Your task to perform on an android device: Open the calendar app, open the side menu, and click the "Day" option Image 0: 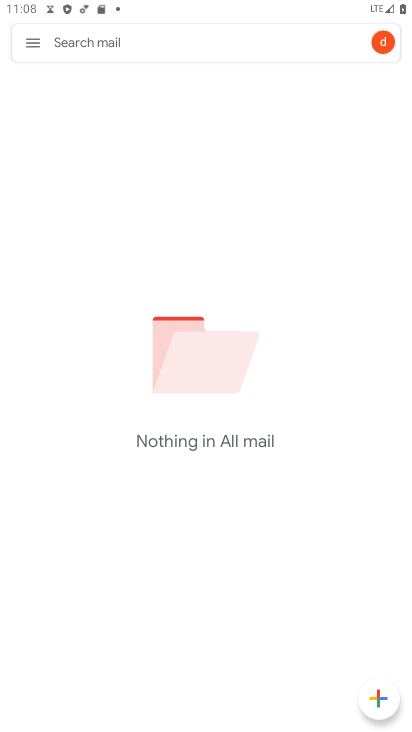
Step 0: press back button
Your task to perform on an android device: Open the calendar app, open the side menu, and click the "Day" option Image 1: 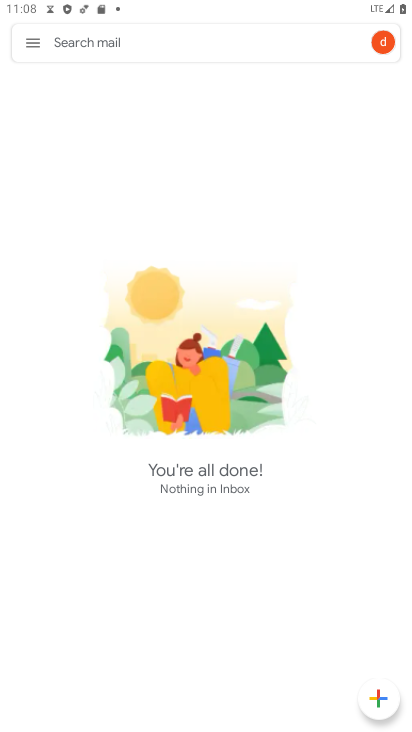
Step 1: press back button
Your task to perform on an android device: Open the calendar app, open the side menu, and click the "Day" option Image 2: 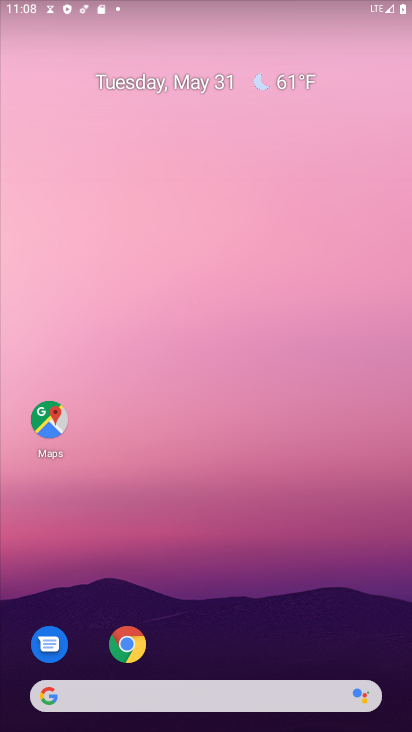
Step 2: drag from (248, 563) to (244, 20)
Your task to perform on an android device: Open the calendar app, open the side menu, and click the "Day" option Image 3: 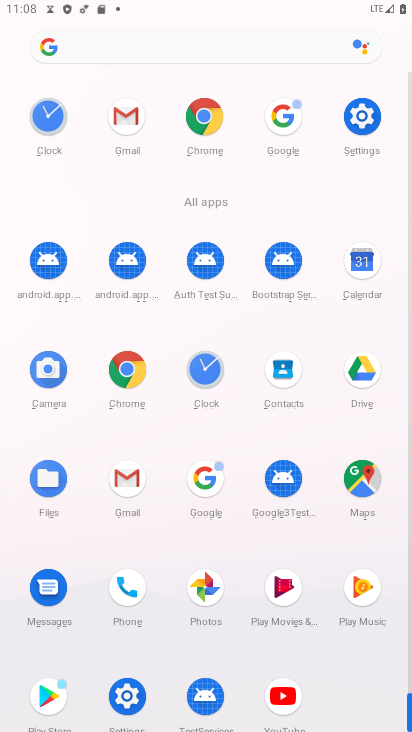
Step 3: click (361, 267)
Your task to perform on an android device: Open the calendar app, open the side menu, and click the "Day" option Image 4: 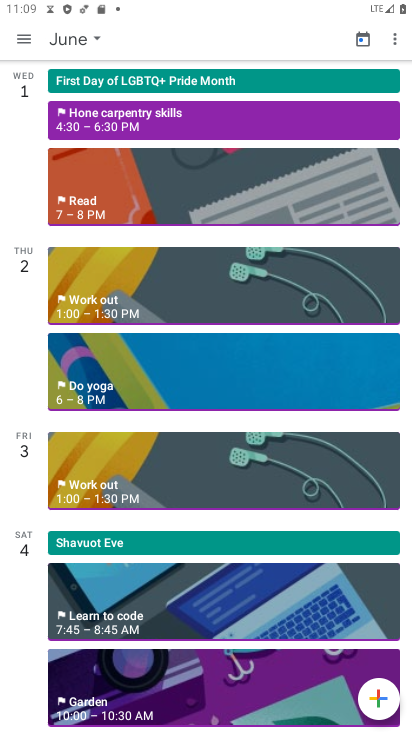
Step 4: click (23, 38)
Your task to perform on an android device: Open the calendar app, open the side menu, and click the "Day" option Image 5: 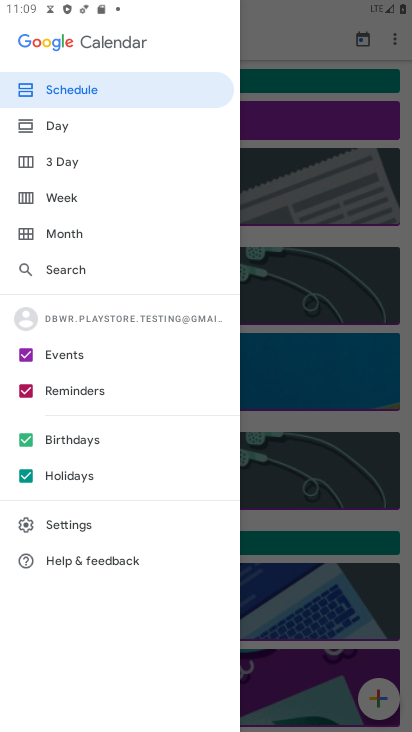
Step 5: click (72, 121)
Your task to perform on an android device: Open the calendar app, open the side menu, and click the "Day" option Image 6: 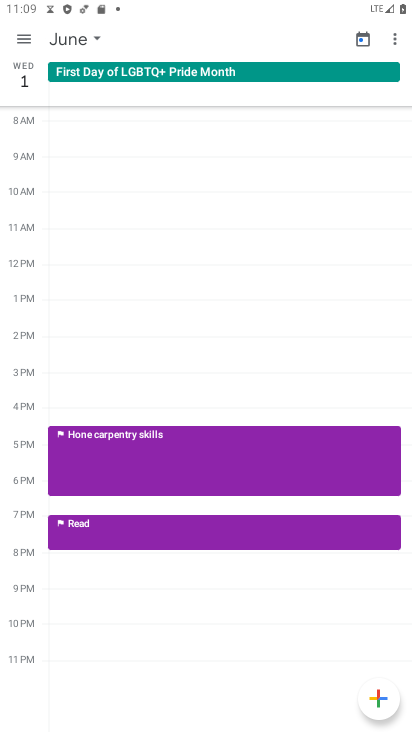
Step 6: task complete